Your task to perform on an android device: turn on airplane mode Image 0: 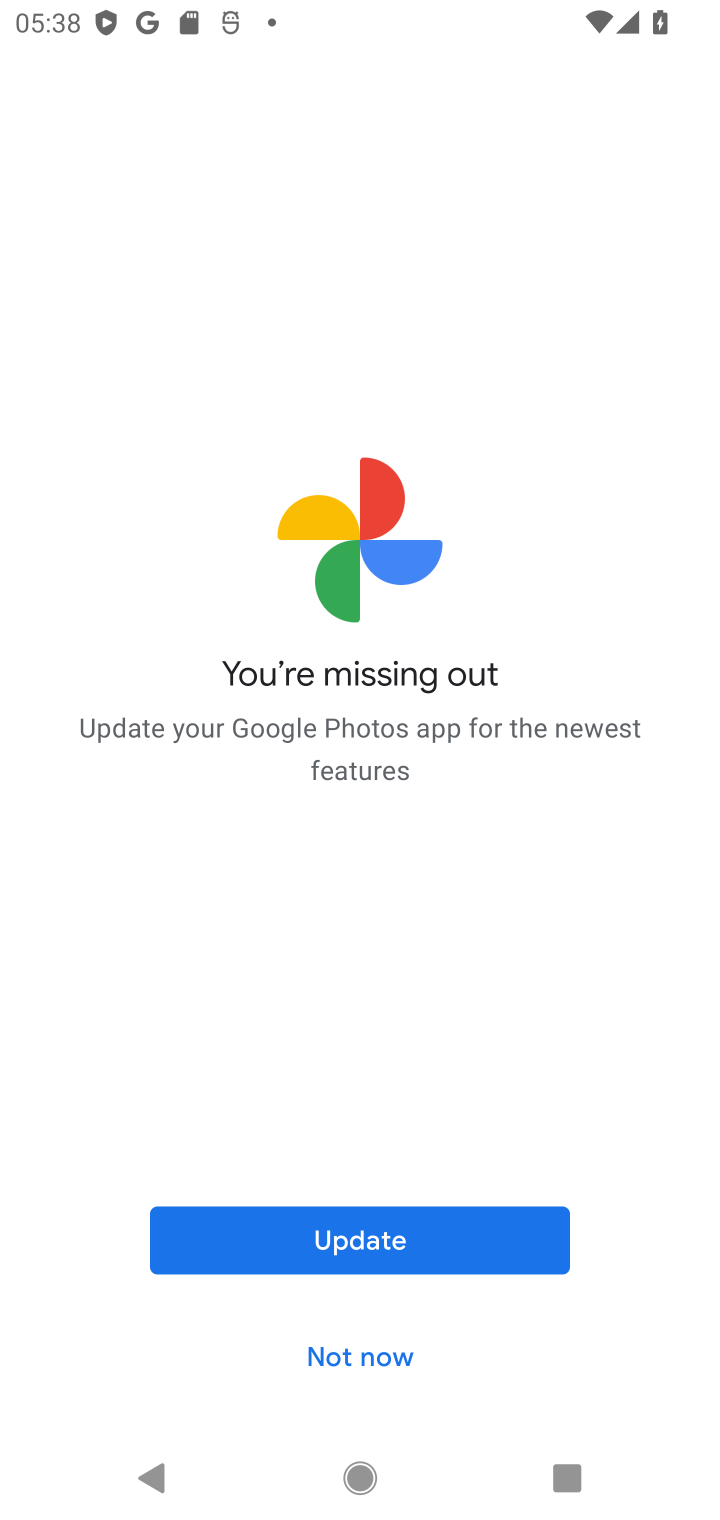
Step 0: press home button
Your task to perform on an android device: turn on airplane mode Image 1: 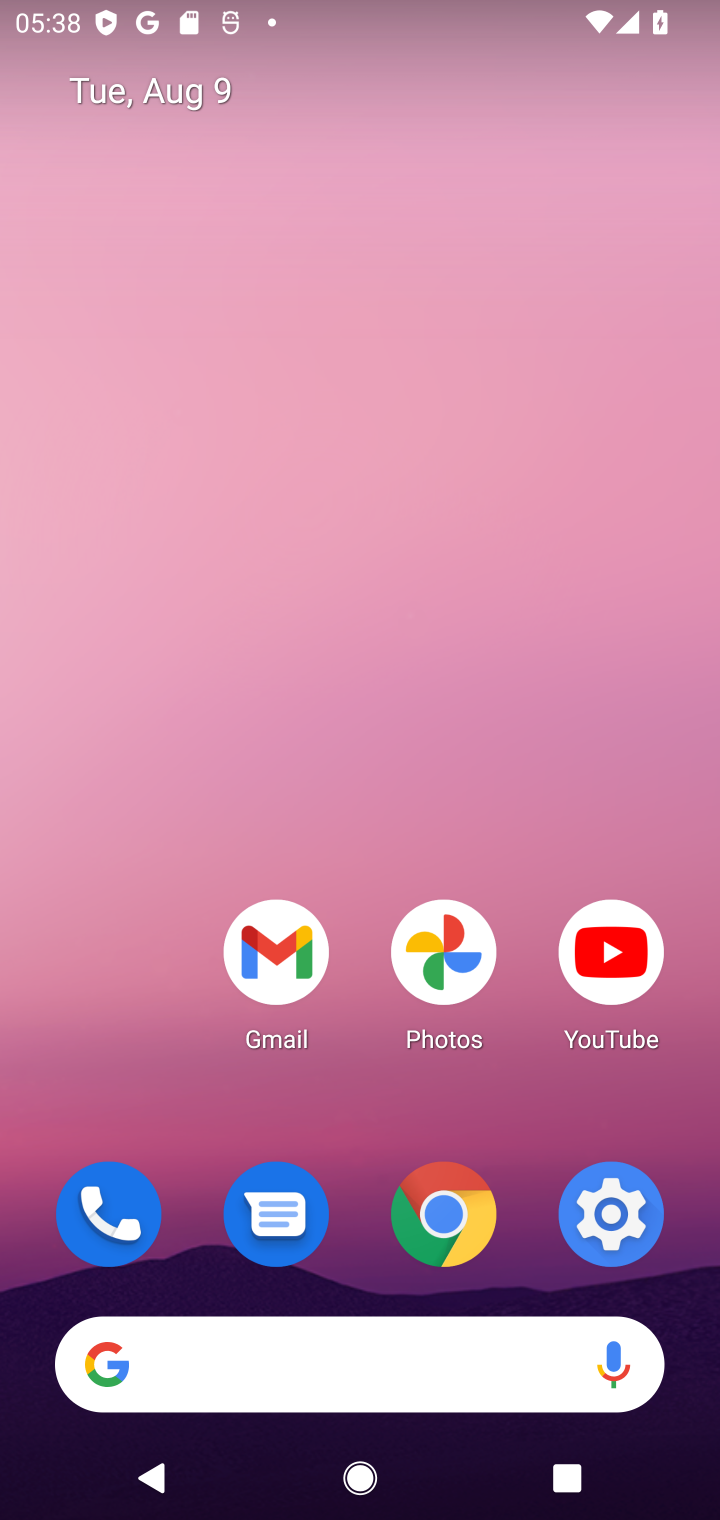
Step 1: drag from (456, 1408) to (544, 239)
Your task to perform on an android device: turn on airplane mode Image 2: 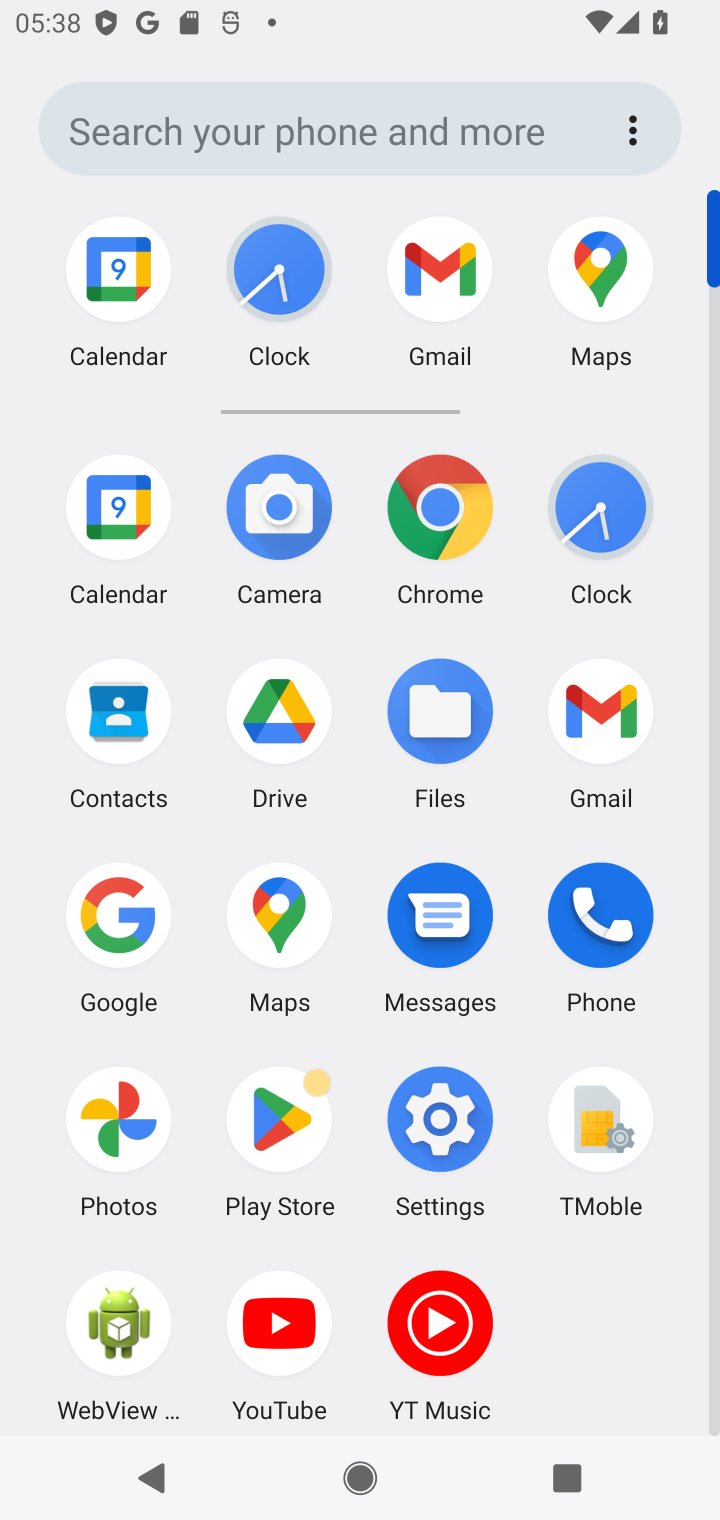
Step 2: click (454, 1122)
Your task to perform on an android device: turn on airplane mode Image 3: 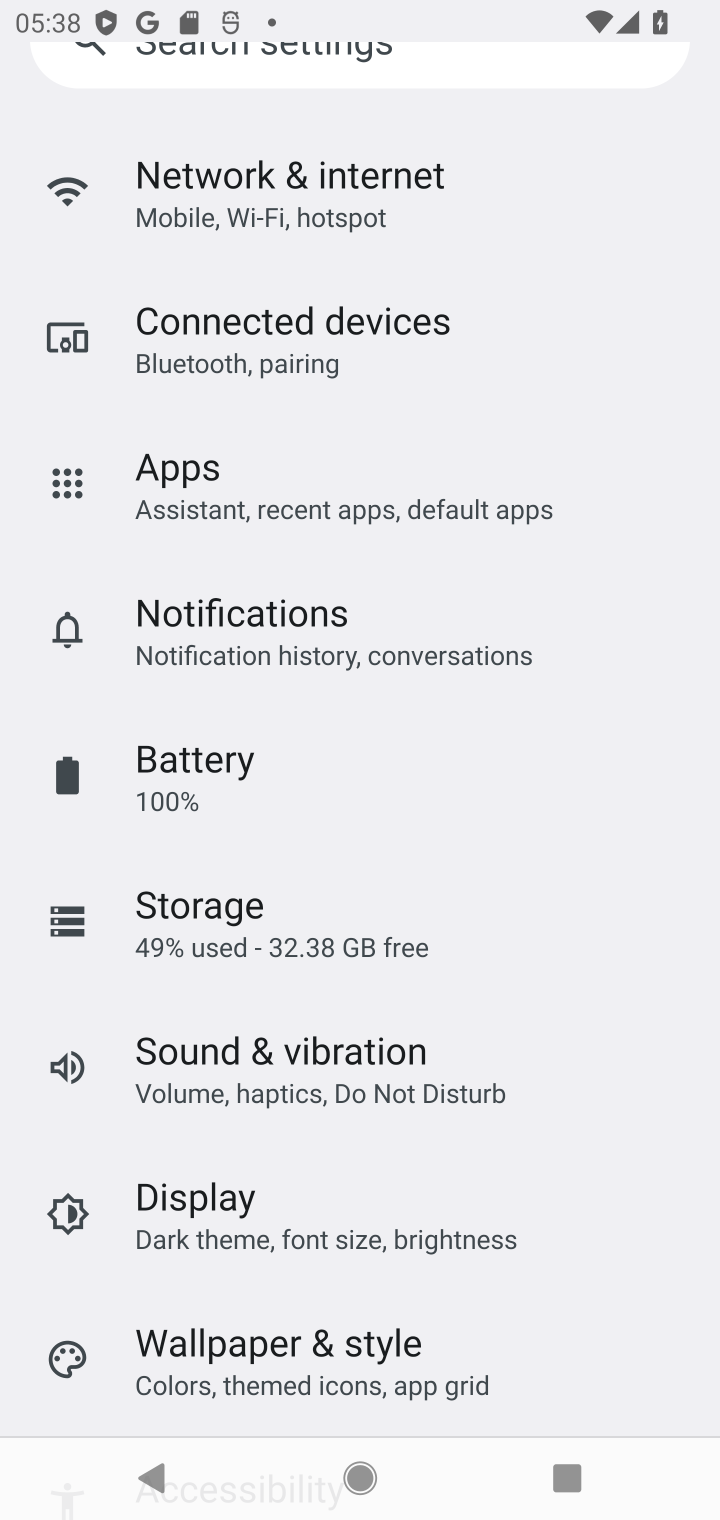
Step 3: click (354, 215)
Your task to perform on an android device: turn on airplane mode Image 4: 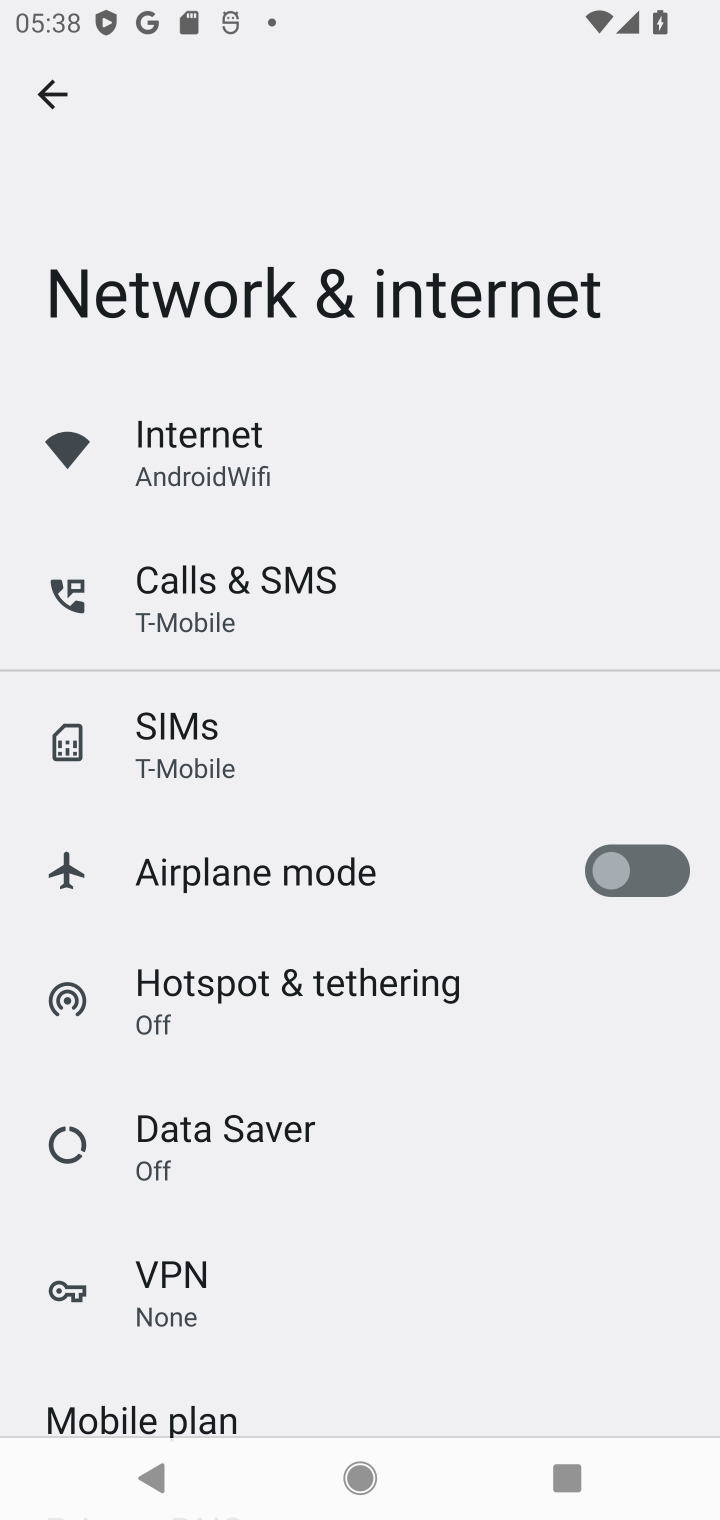
Step 4: click (635, 850)
Your task to perform on an android device: turn on airplane mode Image 5: 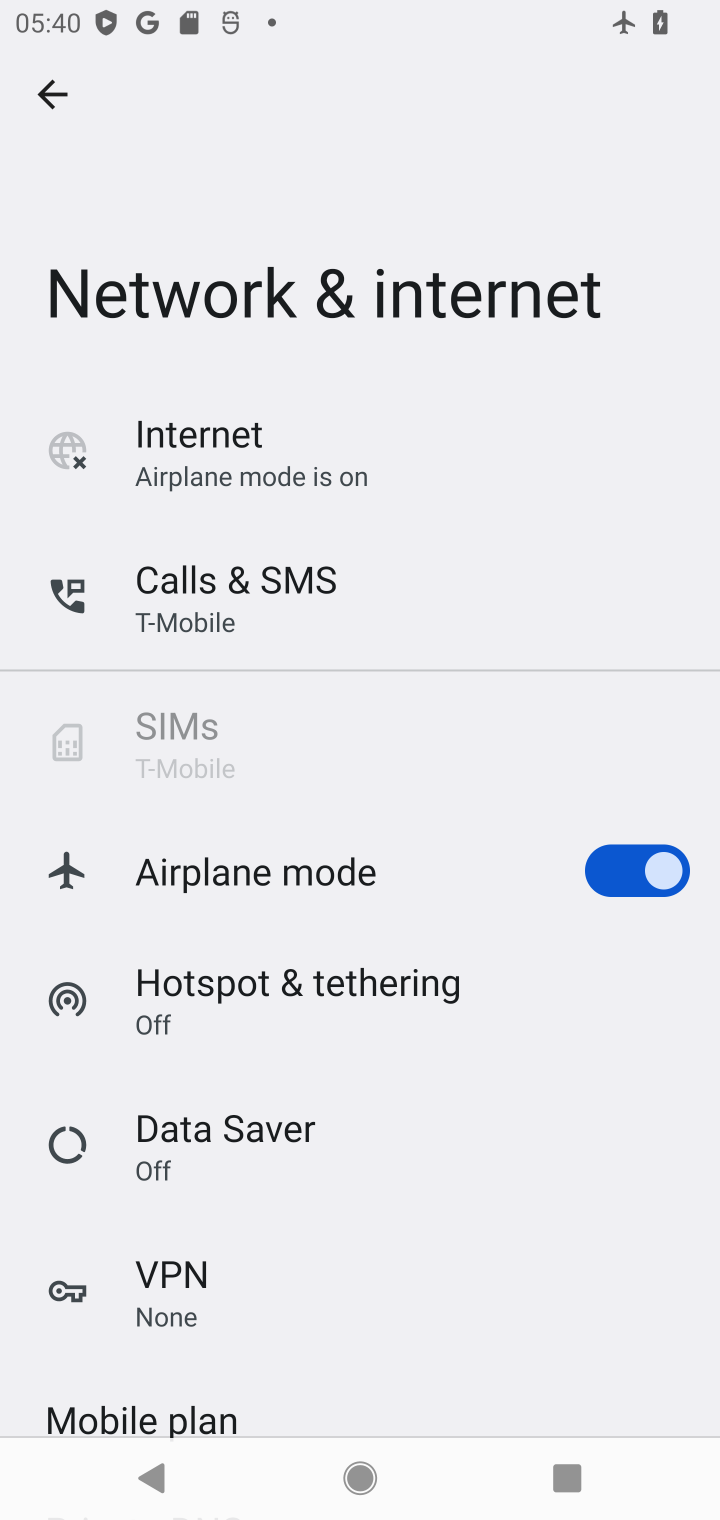
Step 5: task complete